Your task to perform on an android device: find which apps use the phone's location Image 0: 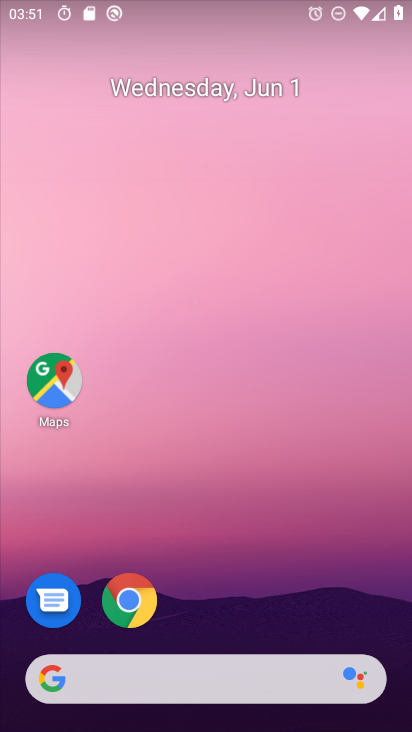
Step 0: drag from (232, 610) to (231, 111)
Your task to perform on an android device: find which apps use the phone's location Image 1: 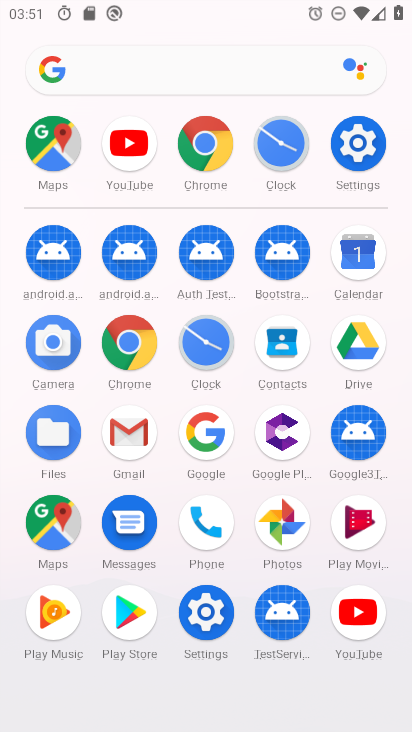
Step 1: click (353, 156)
Your task to perform on an android device: find which apps use the phone's location Image 2: 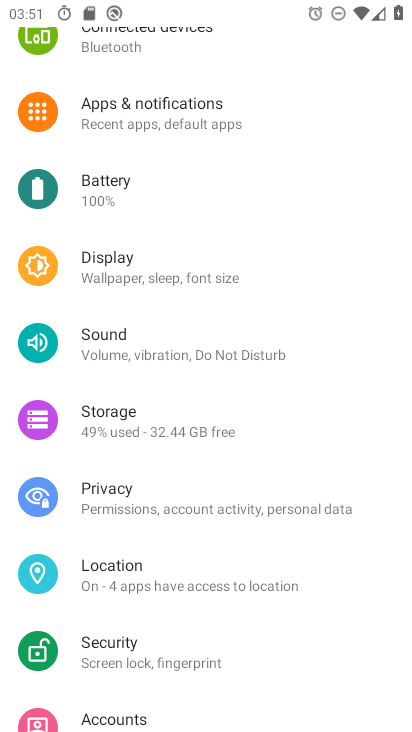
Step 2: click (119, 572)
Your task to perform on an android device: find which apps use the phone's location Image 3: 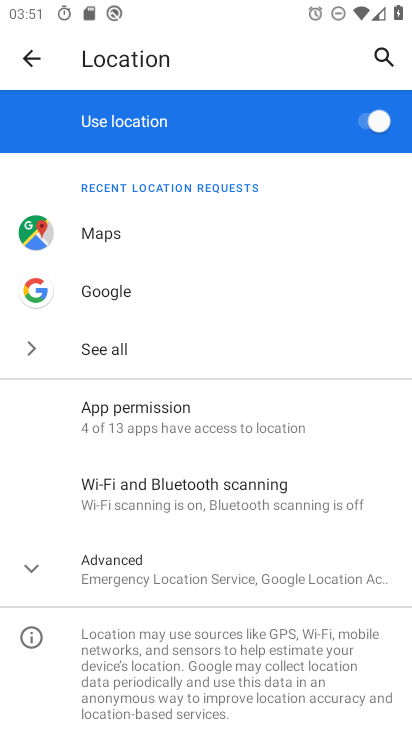
Step 3: click (96, 582)
Your task to perform on an android device: find which apps use the phone's location Image 4: 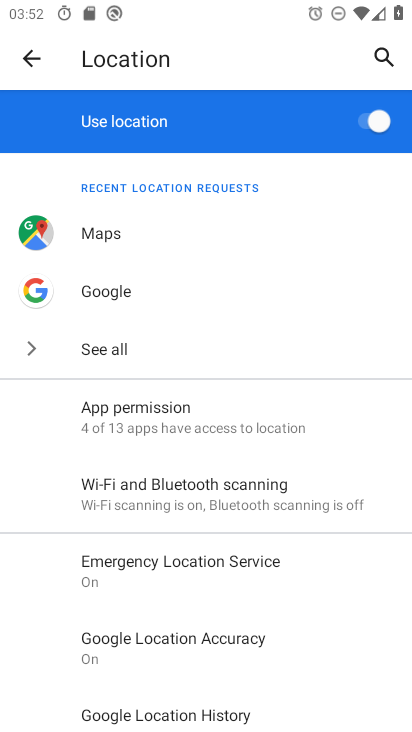
Step 4: click (156, 422)
Your task to perform on an android device: find which apps use the phone's location Image 5: 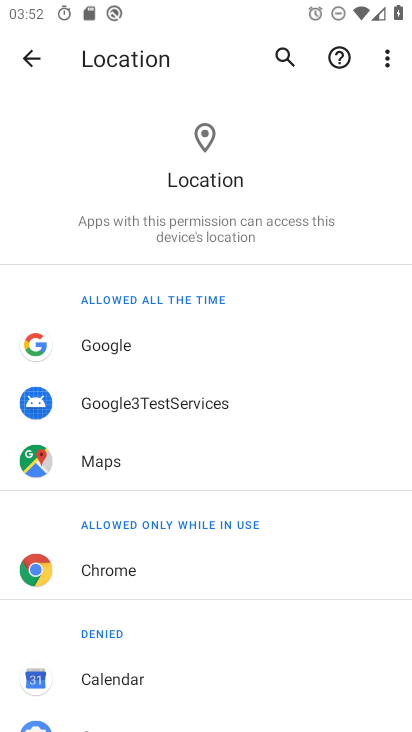
Step 5: task complete